Your task to perform on an android device: allow cookies in the chrome app Image 0: 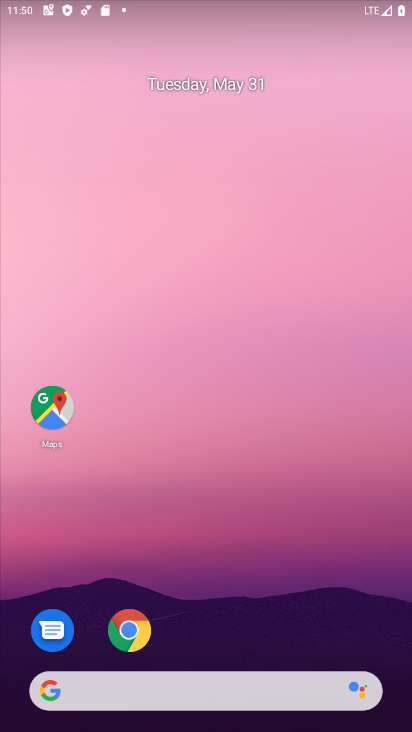
Step 0: press home button
Your task to perform on an android device: allow cookies in the chrome app Image 1: 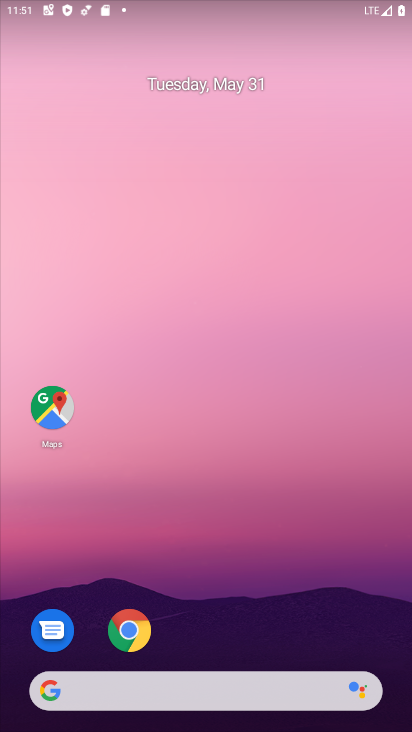
Step 1: drag from (229, 613) to (221, 524)
Your task to perform on an android device: allow cookies in the chrome app Image 2: 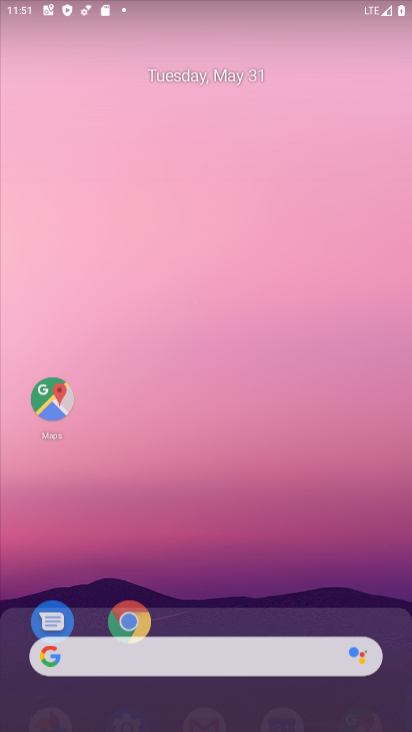
Step 2: click (217, 512)
Your task to perform on an android device: allow cookies in the chrome app Image 3: 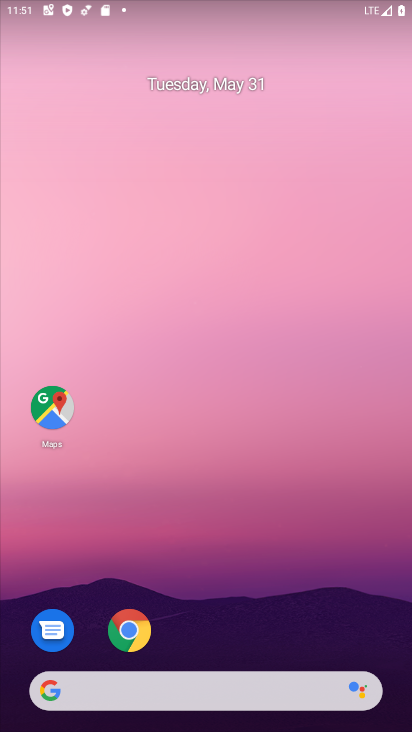
Step 3: click (139, 626)
Your task to perform on an android device: allow cookies in the chrome app Image 4: 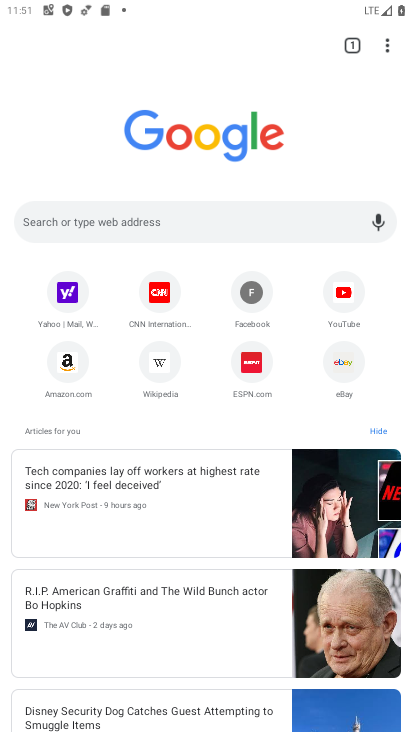
Step 4: click (382, 43)
Your task to perform on an android device: allow cookies in the chrome app Image 5: 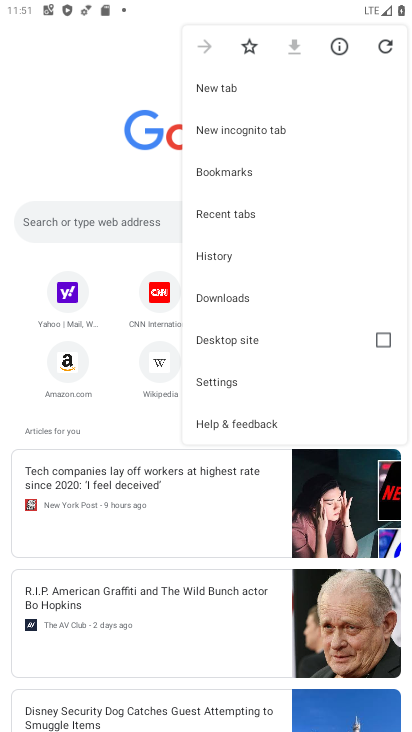
Step 5: click (256, 378)
Your task to perform on an android device: allow cookies in the chrome app Image 6: 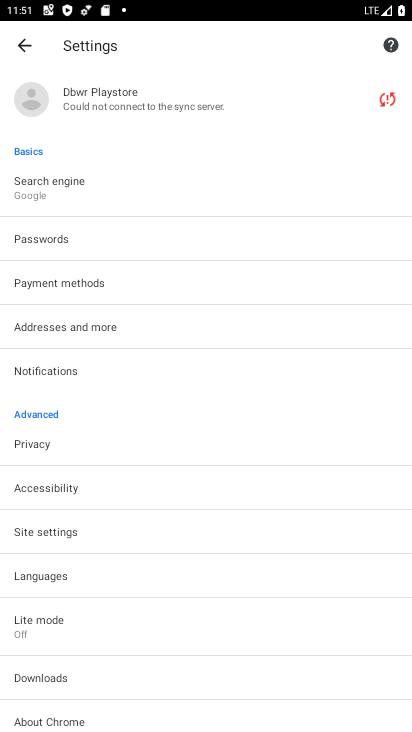
Step 6: click (39, 531)
Your task to perform on an android device: allow cookies in the chrome app Image 7: 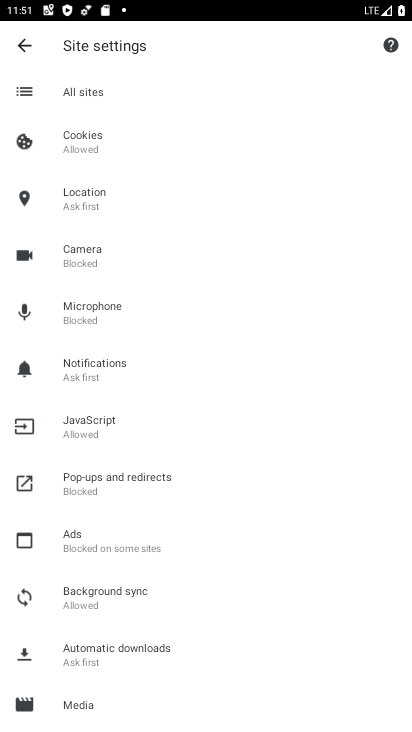
Step 7: click (102, 144)
Your task to perform on an android device: allow cookies in the chrome app Image 8: 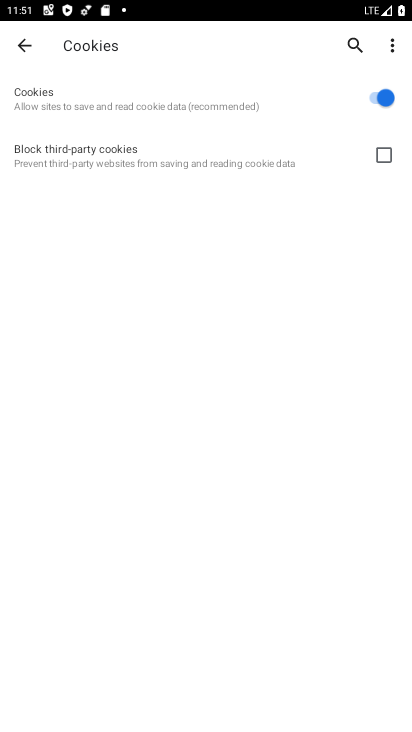
Step 8: task complete